Your task to perform on an android device: Open Google Image 0: 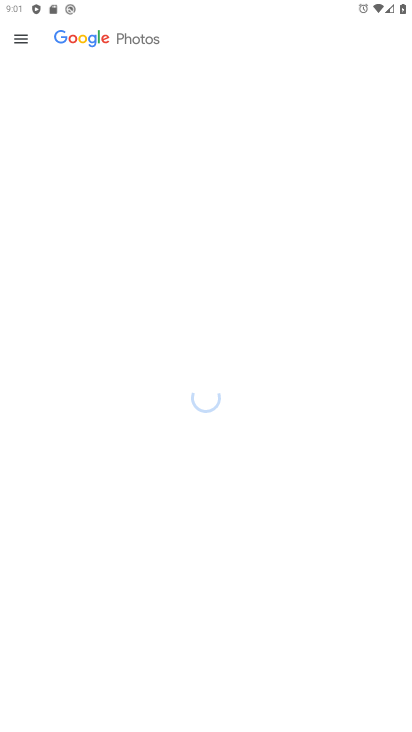
Step 0: press home button
Your task to perform on an android device: Open Google Image 1: 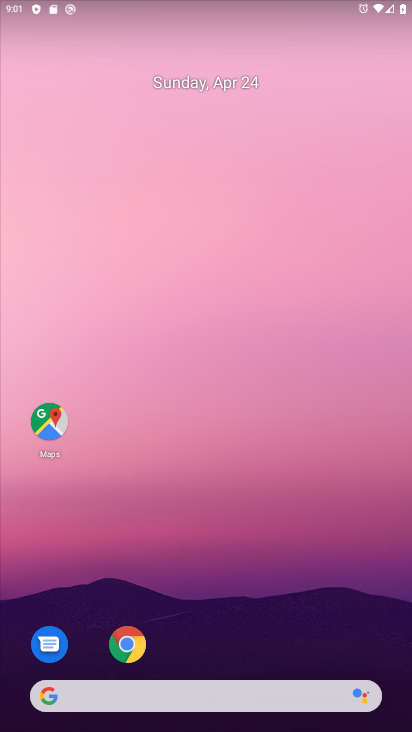
Step 1: drag from (193, 670) to (334, 86)
Your task to perform on an android device: Open Google Image 2: 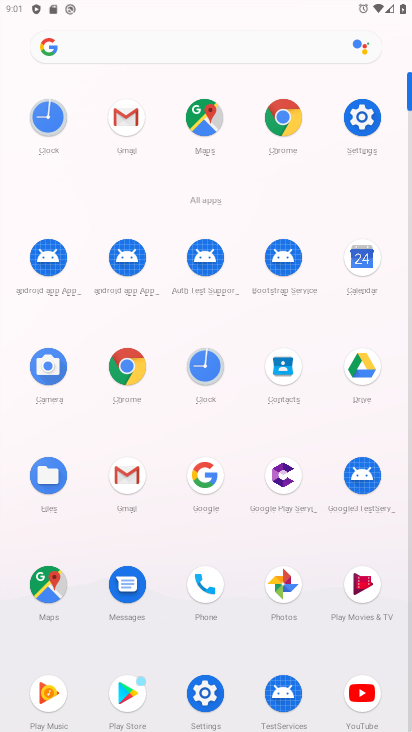
Step 2: click (211, 460)
Your task to perform on an android device: Open Google Image 3: 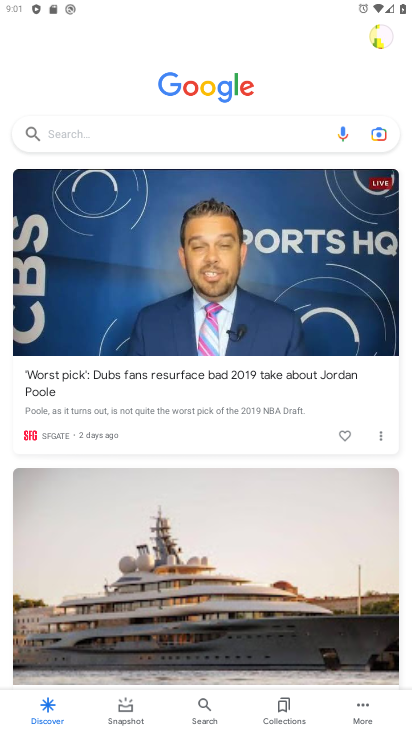
Step 3: task complete